Your task to perform on an android device: find which apps use the phone's location Image 0: 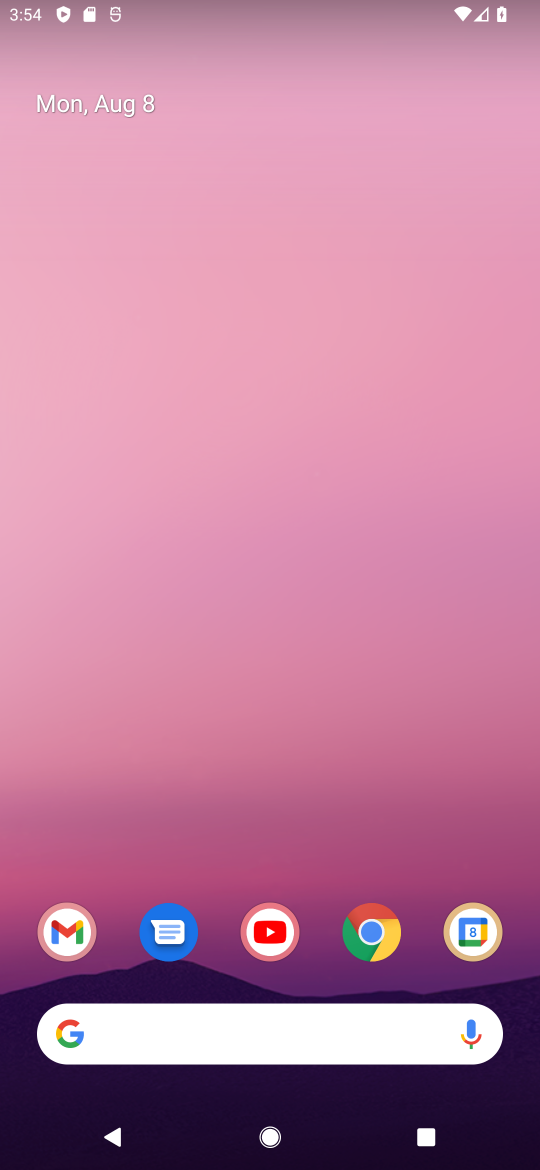
Step 0: drag from (132, 941) to (187, 496)
Your task to perform on an android device: find which apps use the phone's location Image 1: 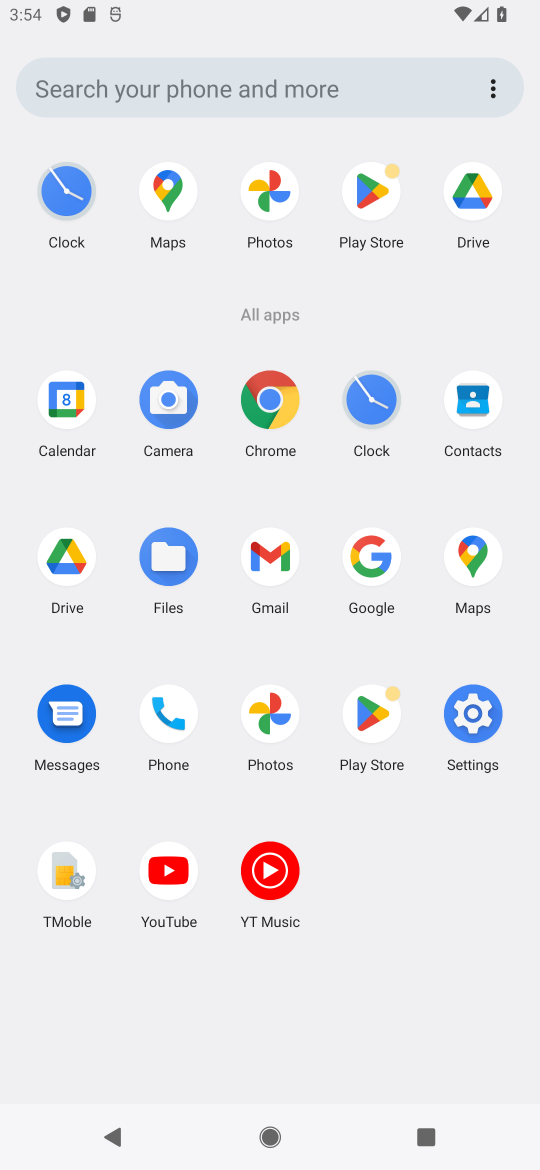
Step 1: click (468, 700)
Your task to perform on an android device: find which apps use the phone's location Image 2: 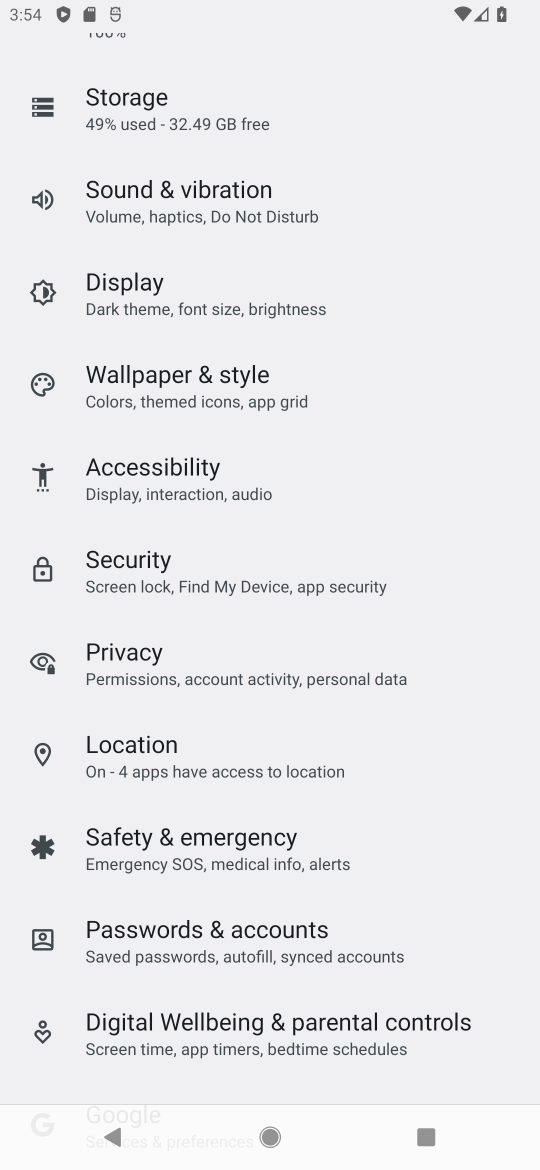
Step 2: click (114, 766)
Your task to perform on an android device: find which apps use the phone's location Image 3: 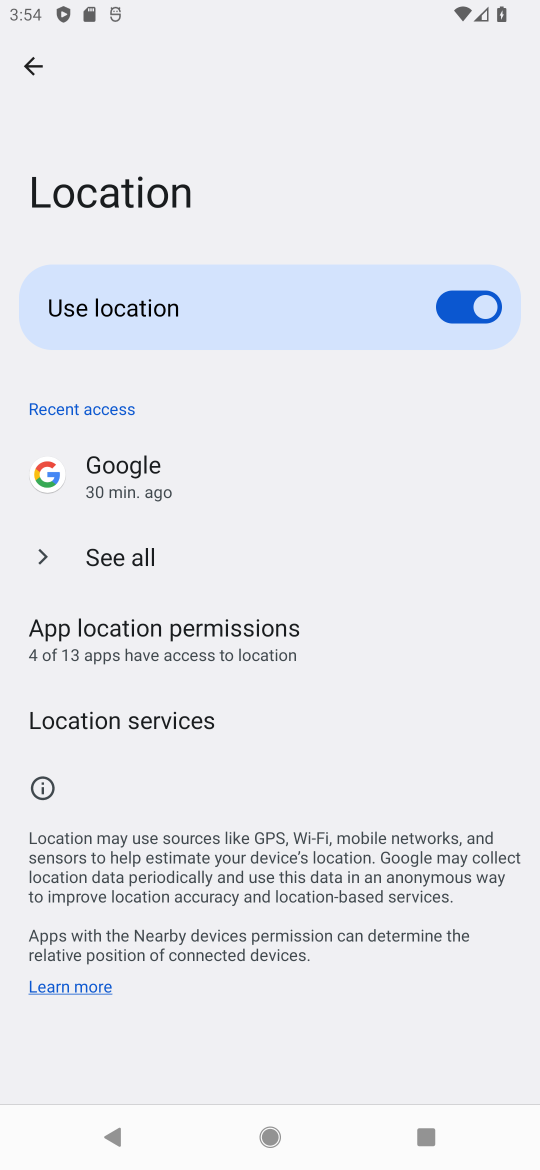
Step 3: click (197, 724)
Your task to perform on an android device: find which apps use the phone's location Image 4: 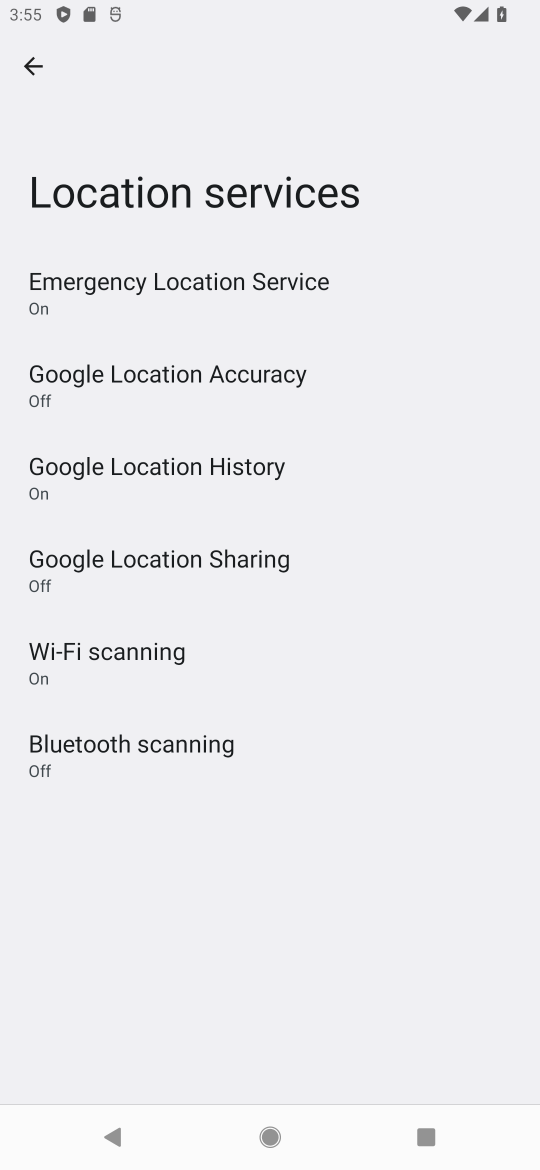
Step 4: task complete